Your task to perform on an android device: allow cookies in the chrome app Image 0: 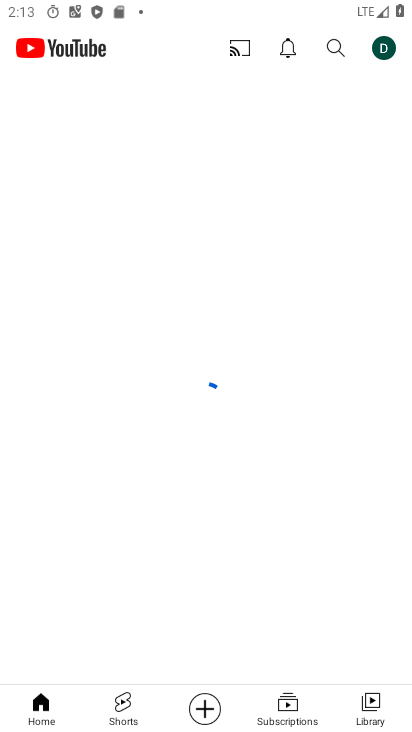
Step 0: drag from (258, 567) to (278, 180)
Your task to perform on an android device: allow cookies in the chrome app Image 1: 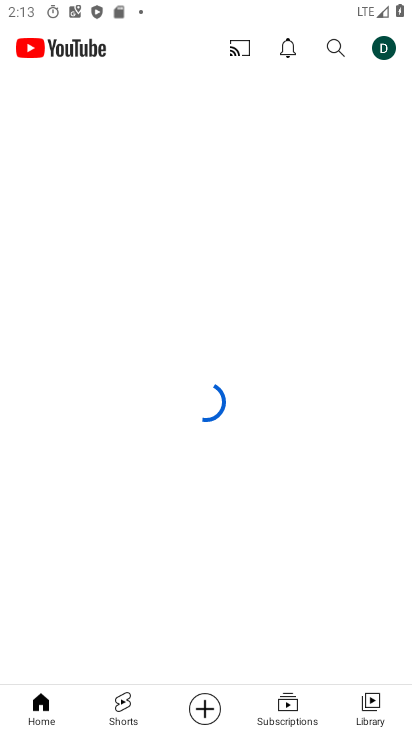
Step 1: press home button
Your task to perform on an android device: allow cookies in the chrome app Image 2: 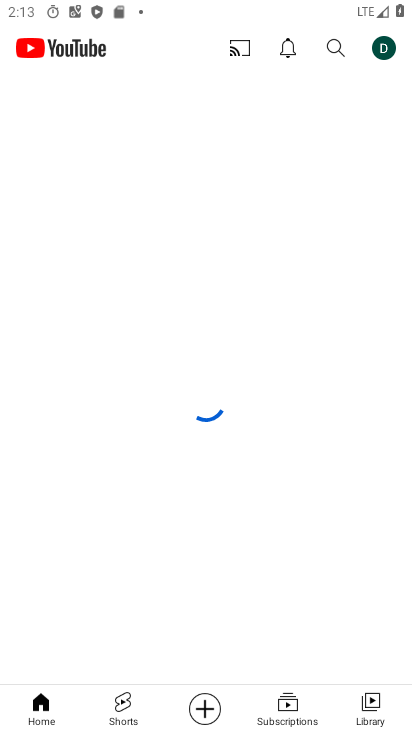
Step 2: click (303, 209)
Your task to perform on an android device: allow cookies in the chrome app Image 3: 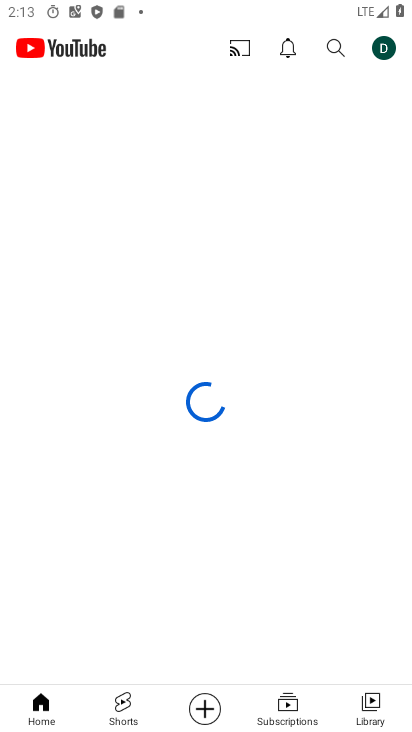
Step 3: press home button
Your task to perform on an android device: allow cookies in the chrome app Image 4: 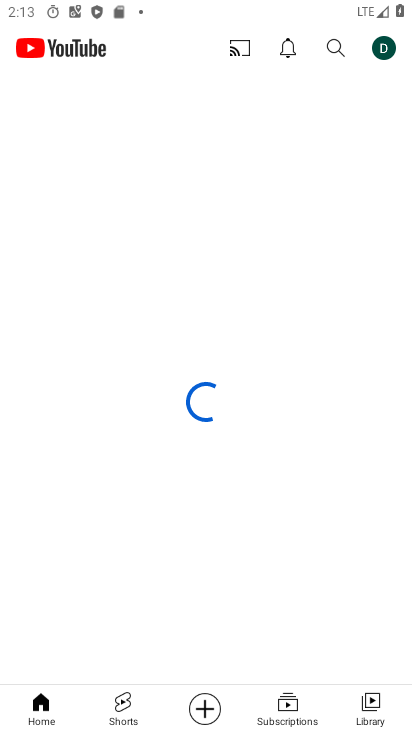
Step 4: drag from (192, 547) to (195, 138)
Your task to perform on an android device: allow cookies in the chrome app Image 5: 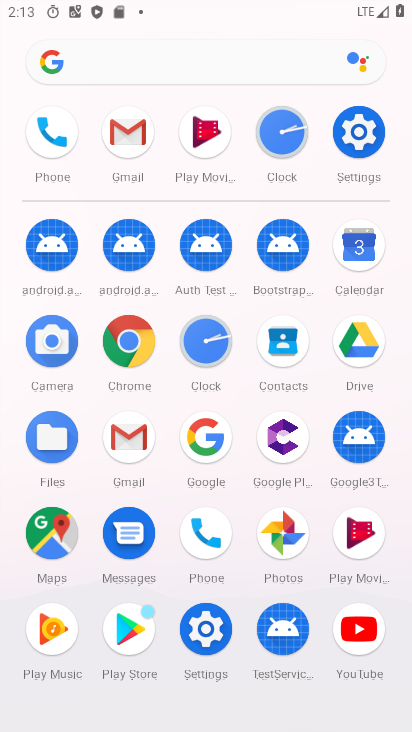
Step 5: drag from (290, 604) to (251, 250)
Your task to perform on an android device: allow cookies in the chrome app Image 6: 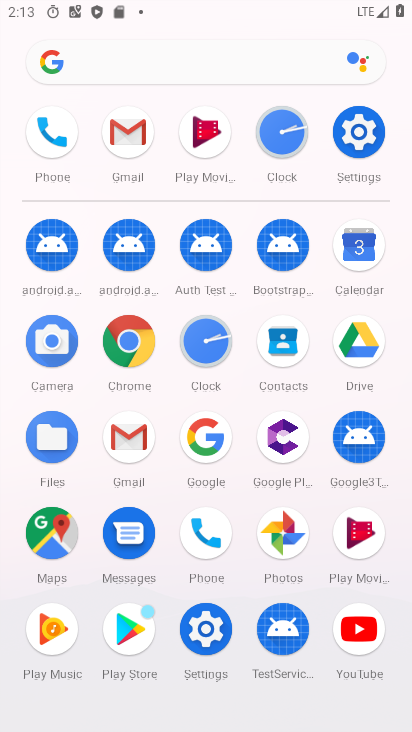
Step 6: click (127, 345)
Your task to perform on an android device: allow cookies in the chrome app Image 7: 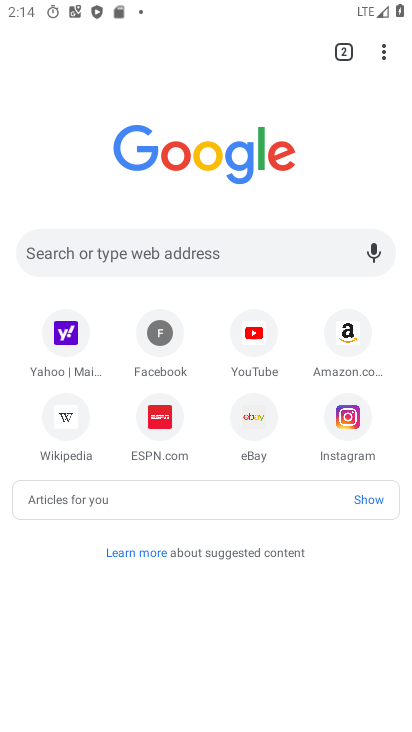
Step 7: drag from (381, 45) to (230, 443)
Your task to perform on an android device: allow cookies in the chrome app Image 8: 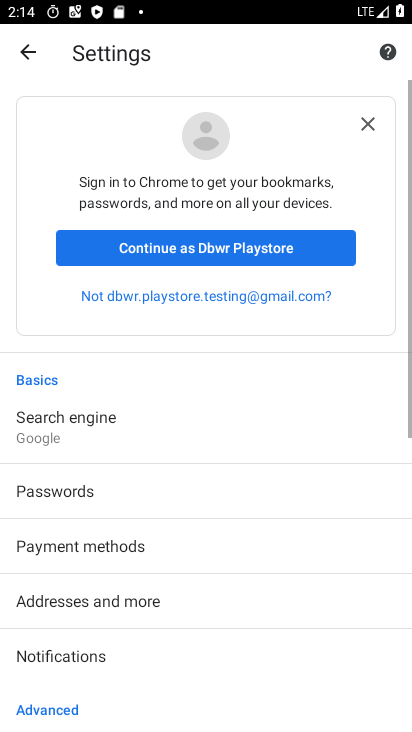
Step 8: drag from (188, 474) to (238, 69)
Your task to perform on an android device: allow cookies in the chrome app Image 9: 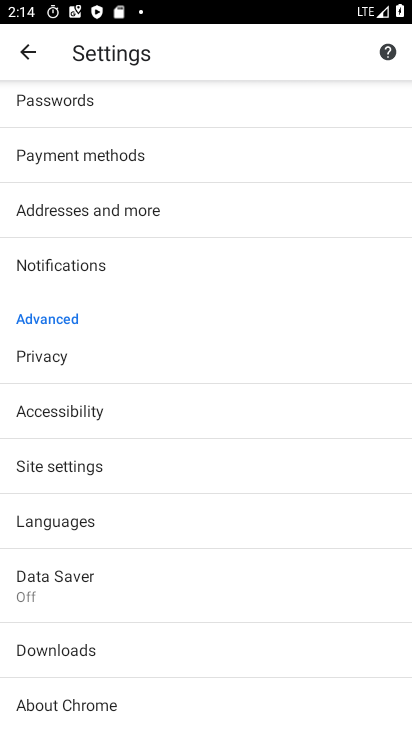
Step 9: click (155, 461)
Your task to perform on an android device: allow cookies in the chrome app Image 10: 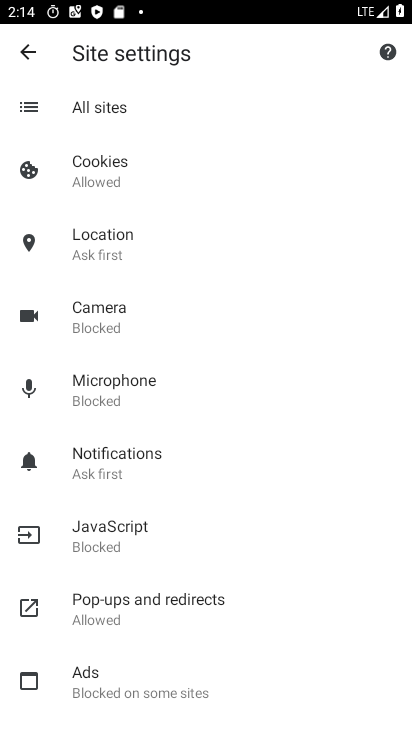
Step 10: click (121, 190)
Your task to perform on an android device: allow cookies in the chrome app Image 11: 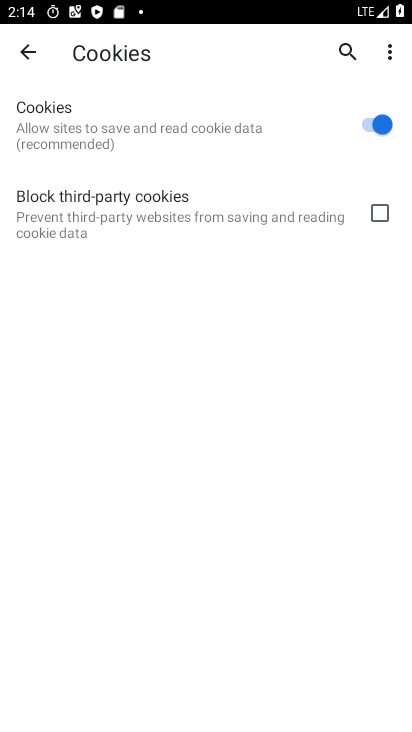
Step 11: drag from (113, 506) to (186, 286)
Your task to perform on an android device: allow cookies in the chrome app Image 12: 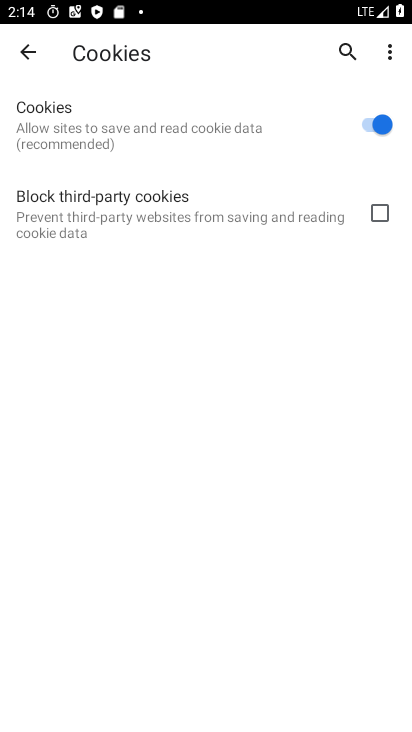
Step 12: click (283, 207)
Your task to perform on an android device: allow cookies in the chrome app Image 13: 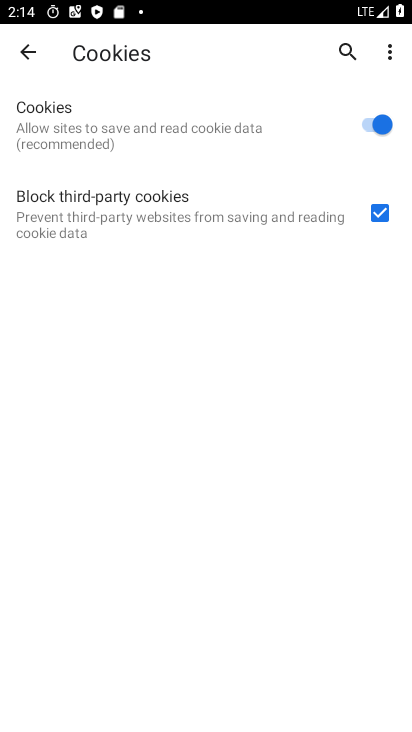
Step 13: task complete